Your task to perform on an android device: Show the shopping cart on bestbuy. Search for "logitech g903" on bestbuy, select the first entry, add it to the cart, then select checkout. Image 0: 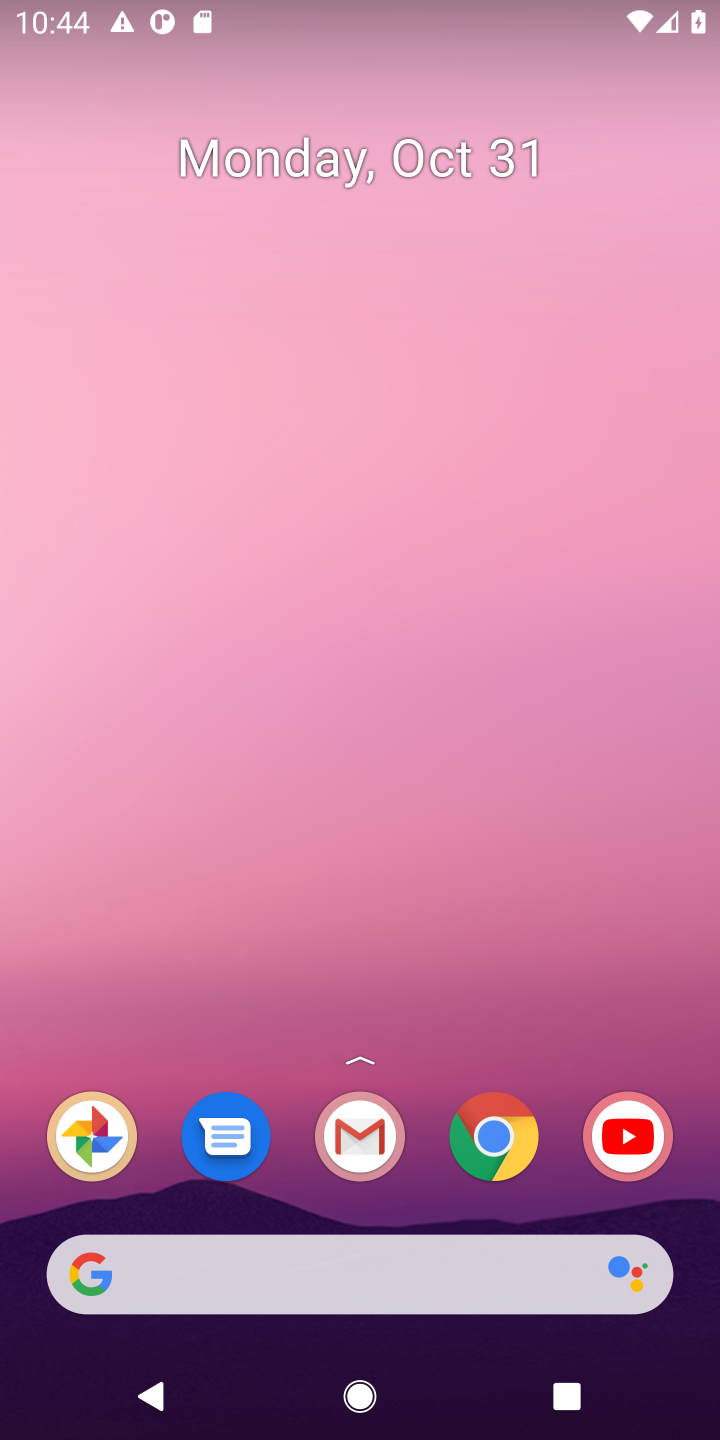
Step 0: press home button
Your task to perform on an android device: Show the shopping cart on bestbuy. Search for "logitech g903" on bestbuy, select the first entry, add it to the cart, then select checkout. Image 1: 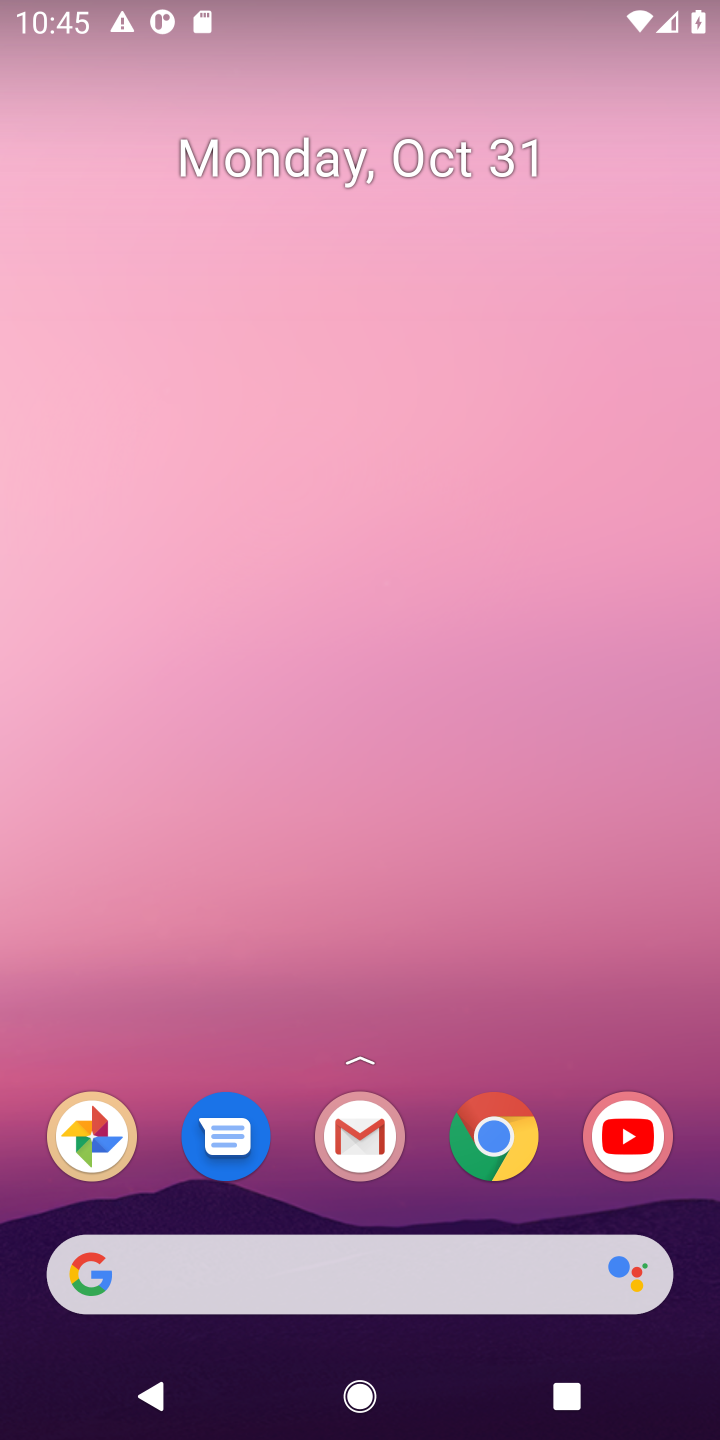
Step 1: click (166, 1257)
Your task to perform on an android device: Show the shopping cart on bestbuy. Search for "logitech g903" on bestbuy, select the first entry, add it to the cart, then select checkout. Image 2: 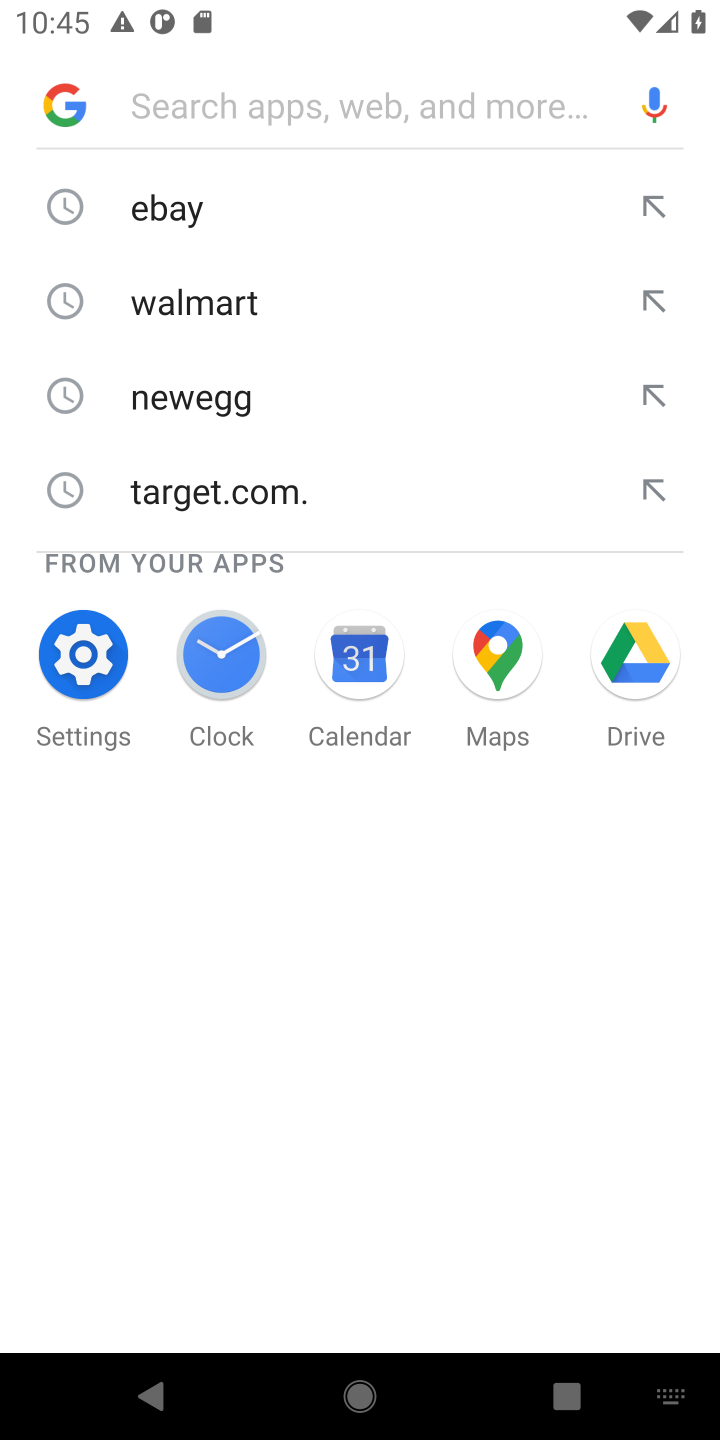
Step 2: type "bestbuy"
Your task to perform on an android device: Show the shopping cart on bestbuy. Search for "logitech g903" on bestbuy, select the first entry, add it to the cart, then select checkout. Image 3: 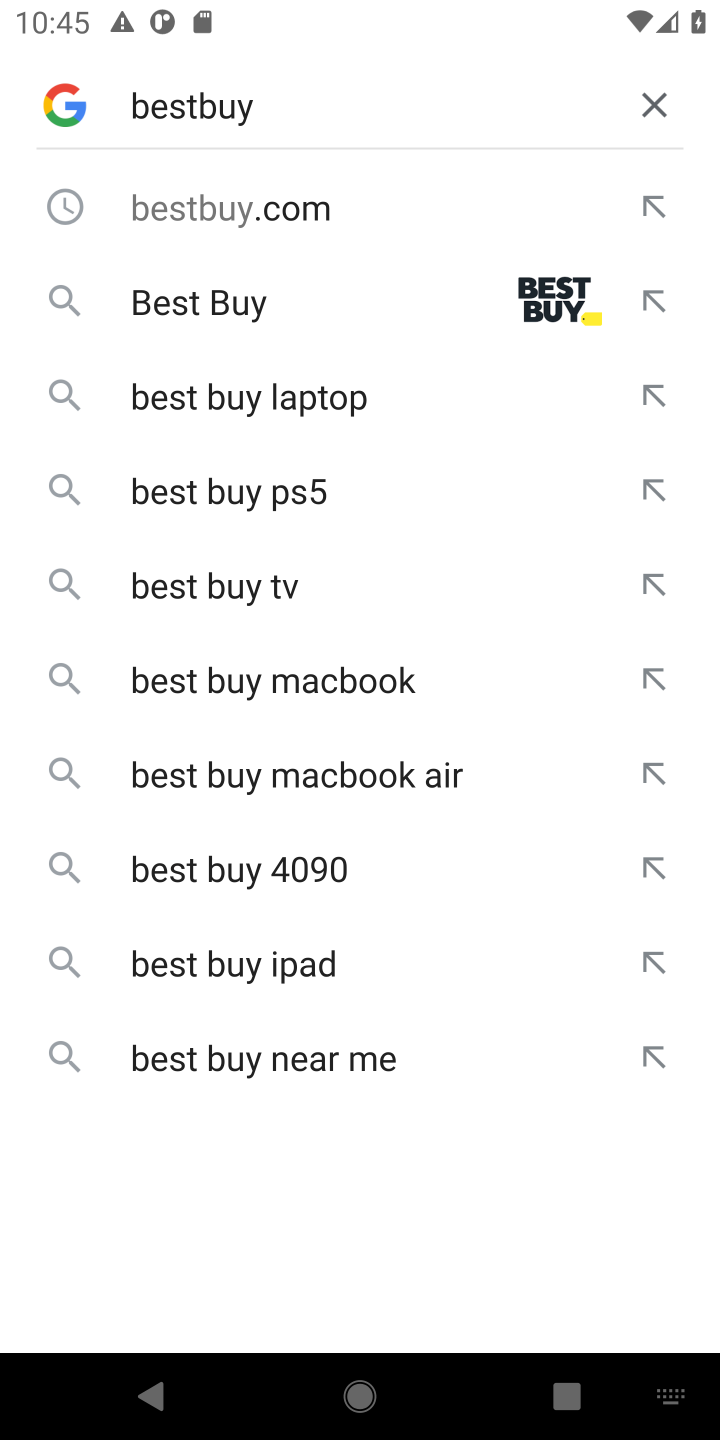
Step 3: press enter
Your task to perform on an android device: Show the shopping cart on bestbuy. Search for "logitech g903" on bestbuy, select the first entry, add it to the cart, then select checkout. Image 4: 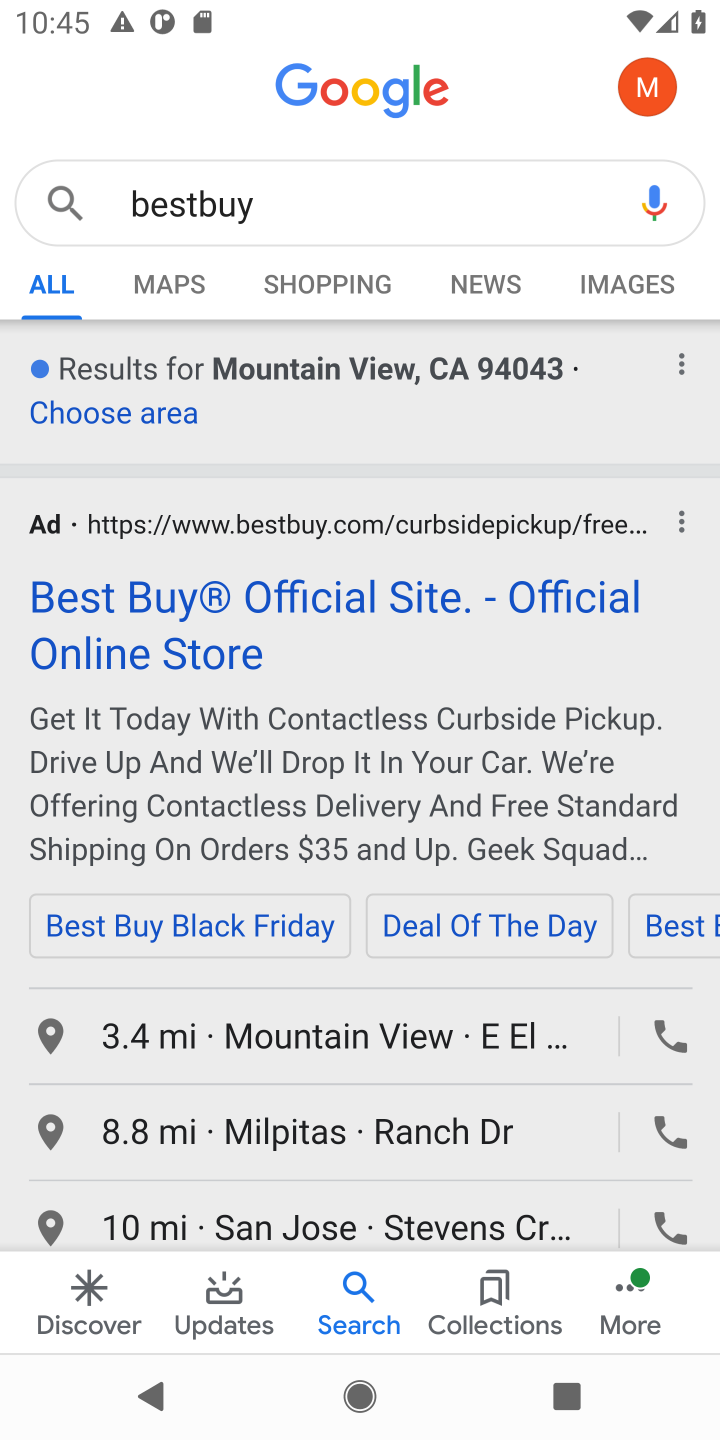
Step 4: click (239, 606)
Your task to perform on an android device: Show the shopping cart on bestbuy. Search for "logitech g903" on bestbuy, select the first entry, add it to the cart, then select checkout. Image 5: 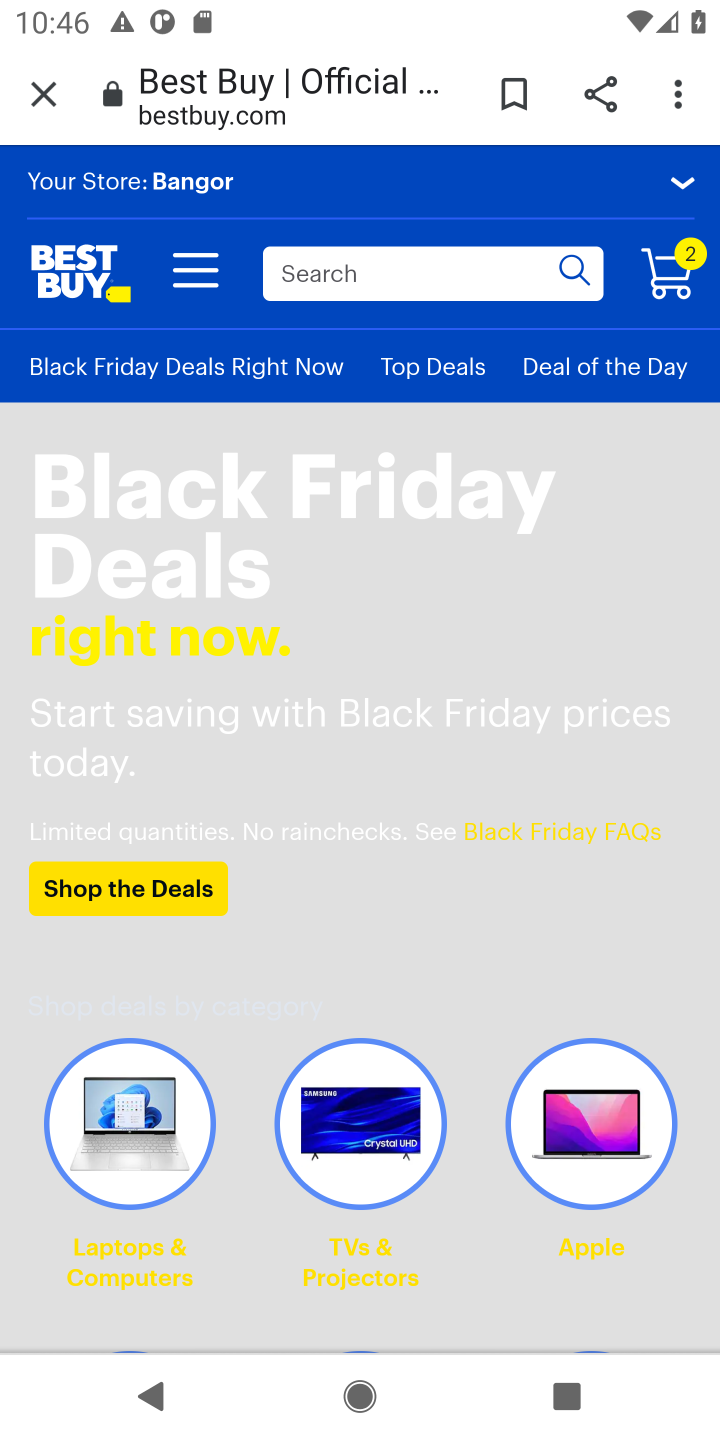
Step 5: click (667, 262)
Your task to perform on an android device: Show the shopping cart on bestbuy. Search for "logitech g903" on bestbuy, select the first entry, add it to the cart, then select checkout. Image 6: 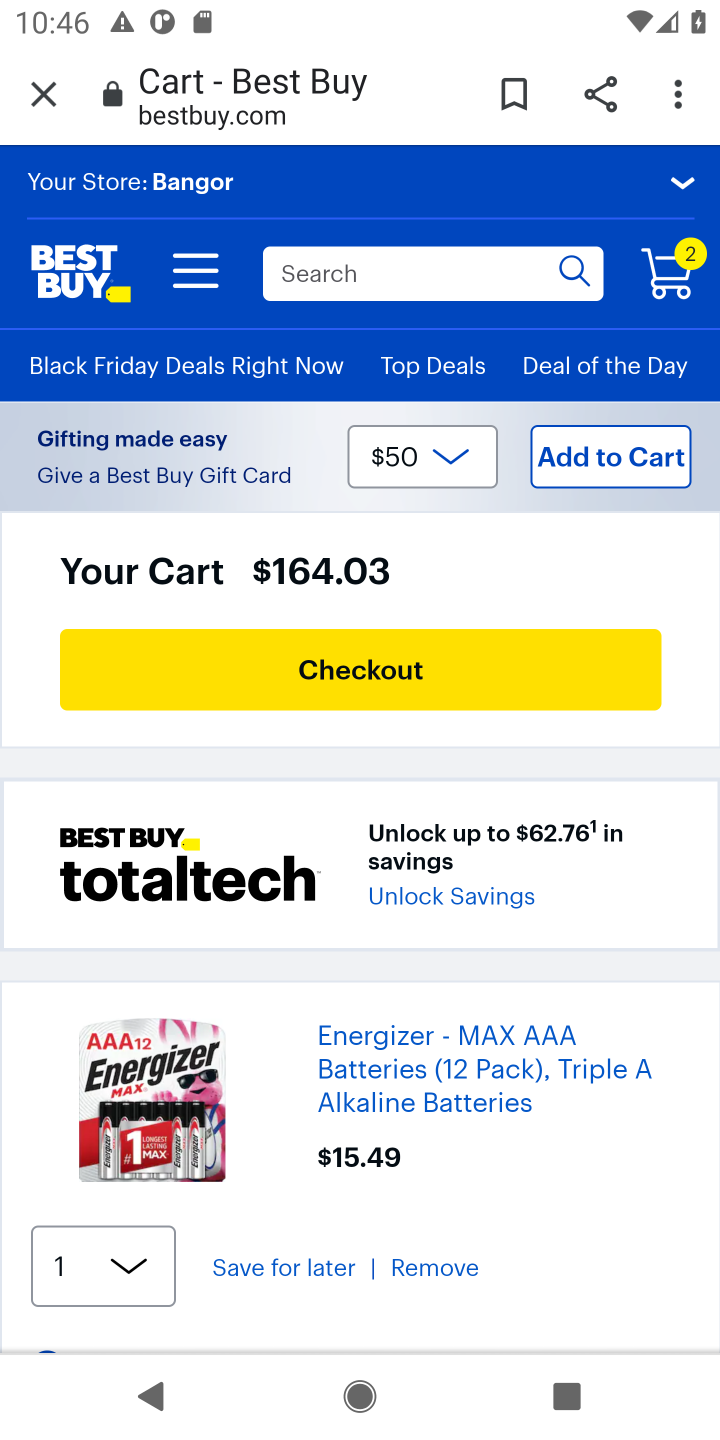
Step 6: click (330, 262)
Your task to perform on an android device: Show the shopping cart on bestbuy. Search for "logitech g903" on bestbuy, select the first entry, add it to the cart, then select checkout. Image 7: 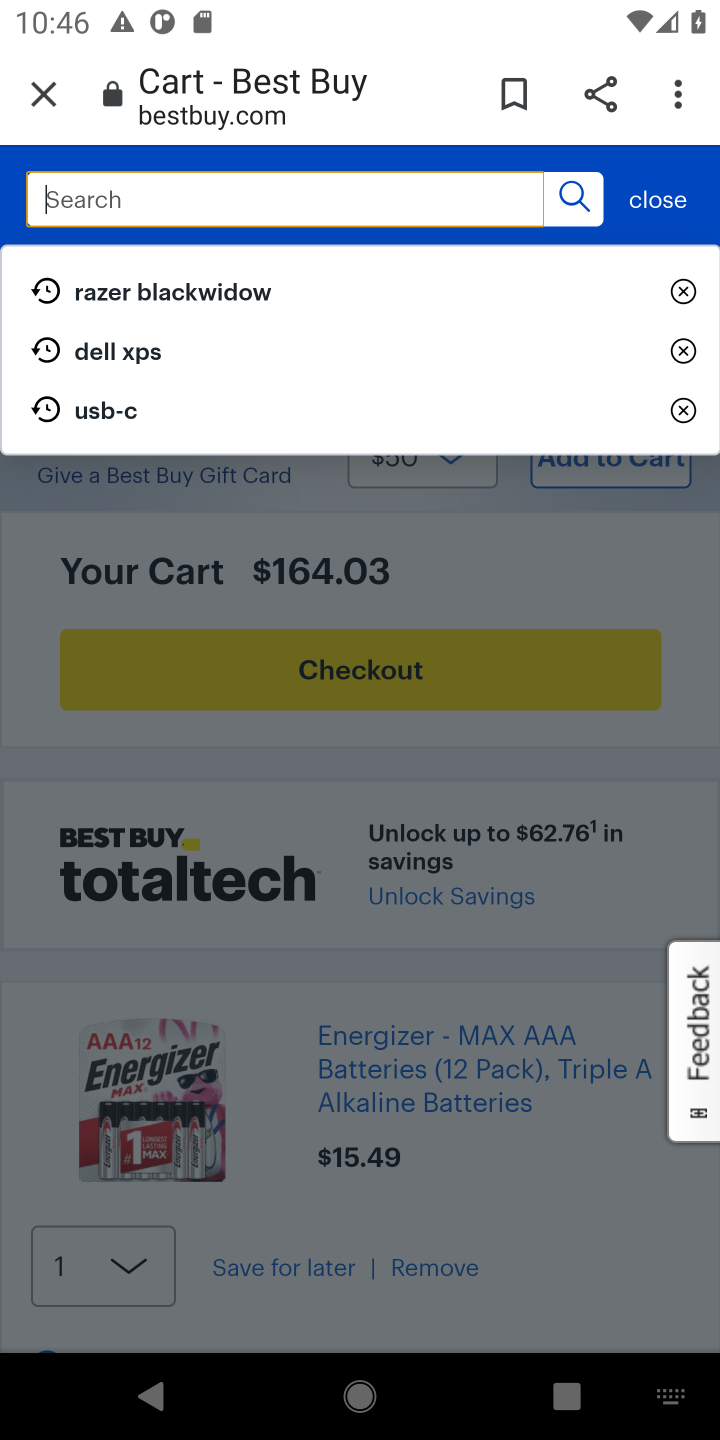
Step 7: type "logitech g903"
Your task to perform on an android device: Show the shopping cart on bestbuy. Search for "logitech g903" on bestbuy, select the first entry, add it to the cart, then select checkout. Image 8: 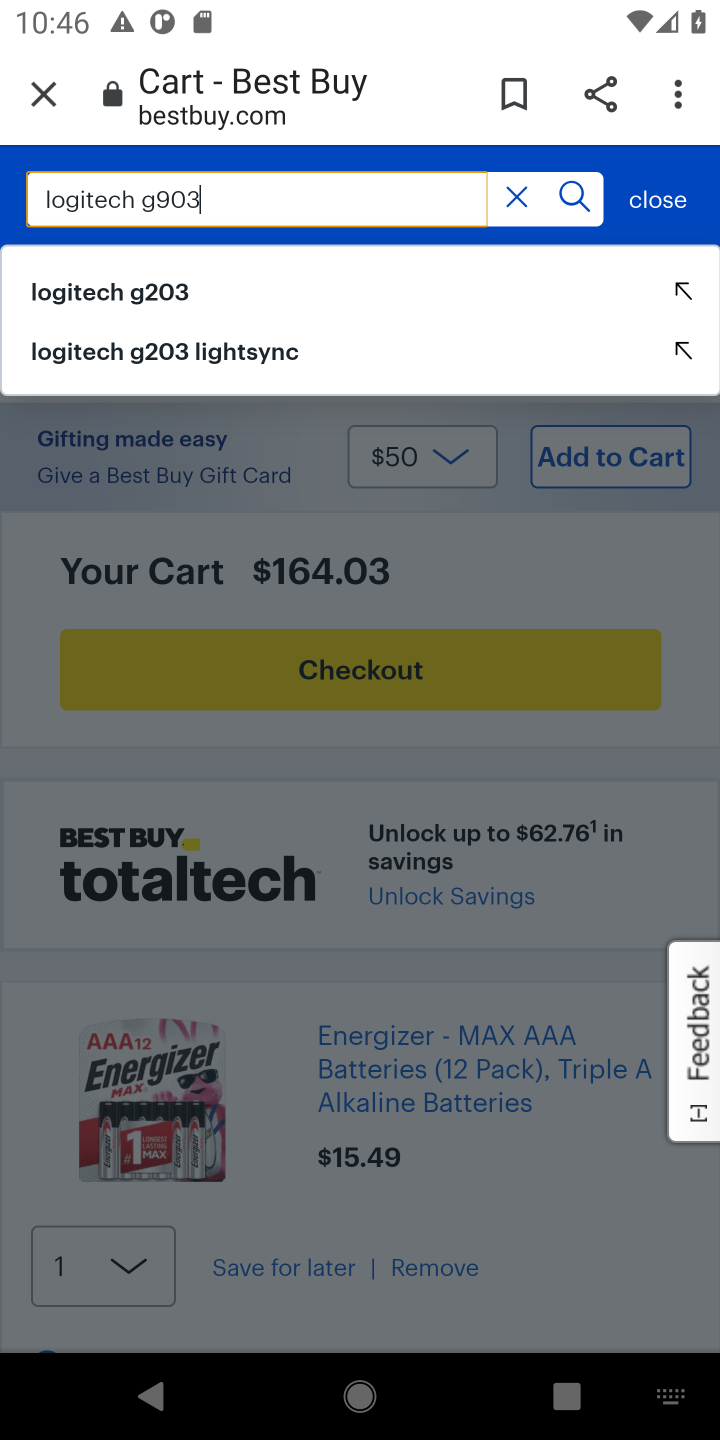
Step 8: click (574, 181)
Your task to perform on an android device: Show the shopping cart on bestbuy. Search for "logitech g903" on bestbuy, select the first entry, add it to the cart, then select checkout. Image 9: 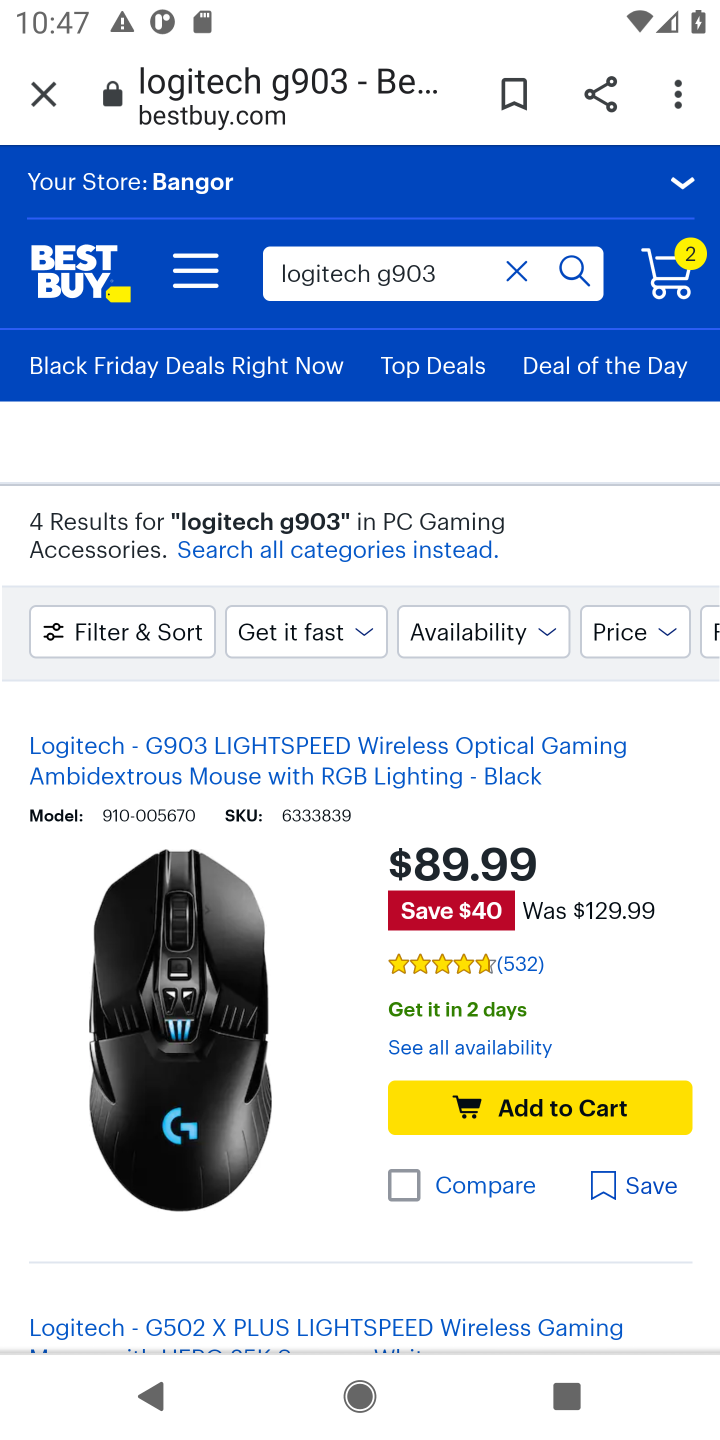
Step 9: click (536, 1099)
Your task to perform on an android device: Show the shopping cart on bestbuy. Search for "logitech g903" on bestbuy, select the first entry, add it to the cart, then select checkout. Image 10: 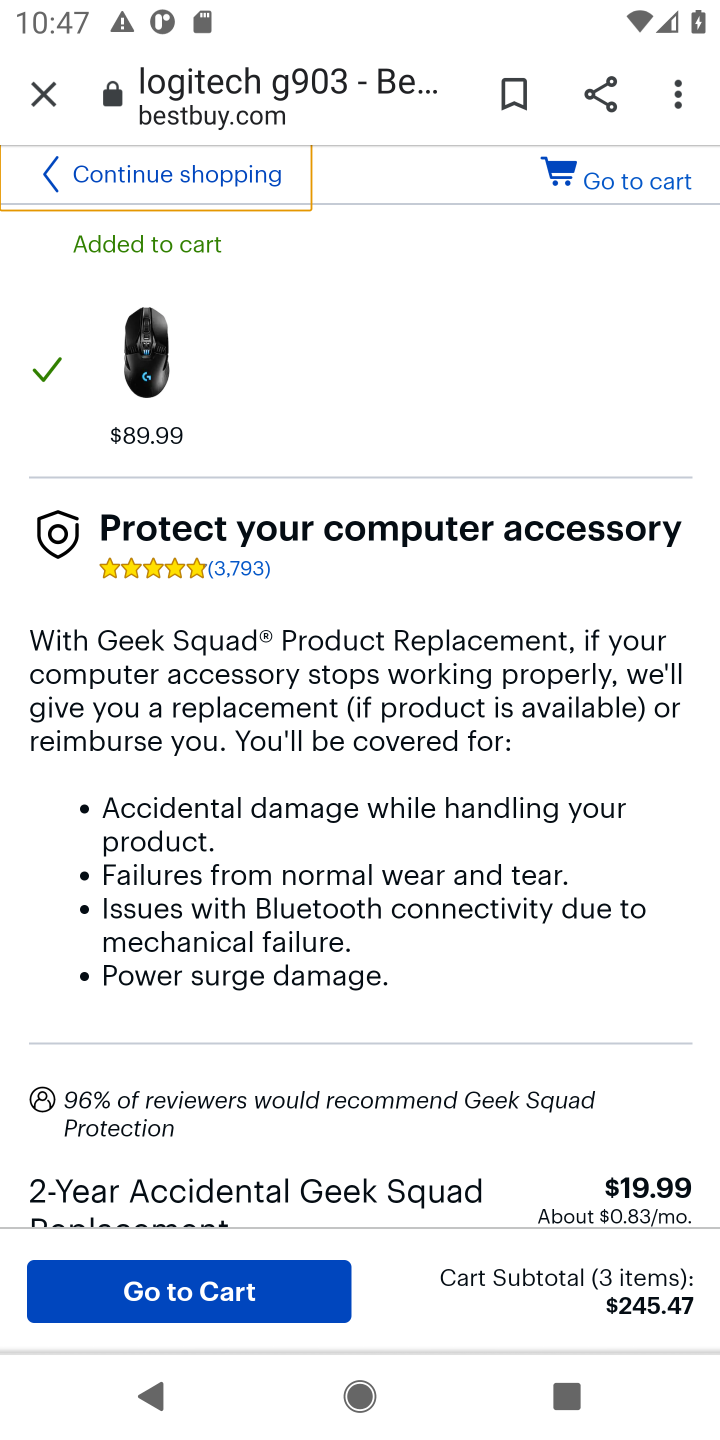
Step 10: click (252, 1299)
Your task to perform on an android device: Show the shopping cart on bestbuy. Search for "logitech g903" on bestbuy, select the first entry, add it to the cart, then select checkout. Image 11: 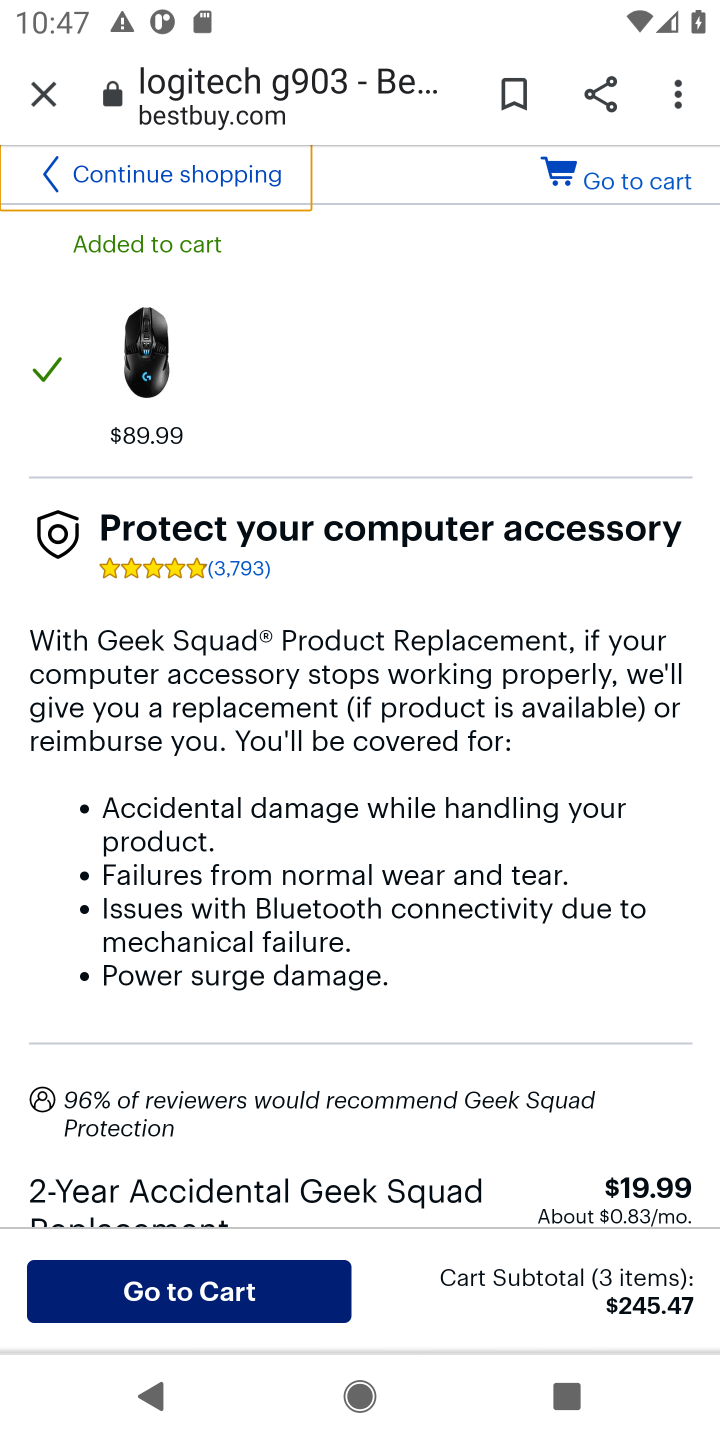
Step 11: click (238, 1307)
Your task to perform on an android device: Show the shopping cart on bestbuy. Search for "logitech g903" on bestbuy, select the first entry, add it to the cart, then select checkout. Image 12: 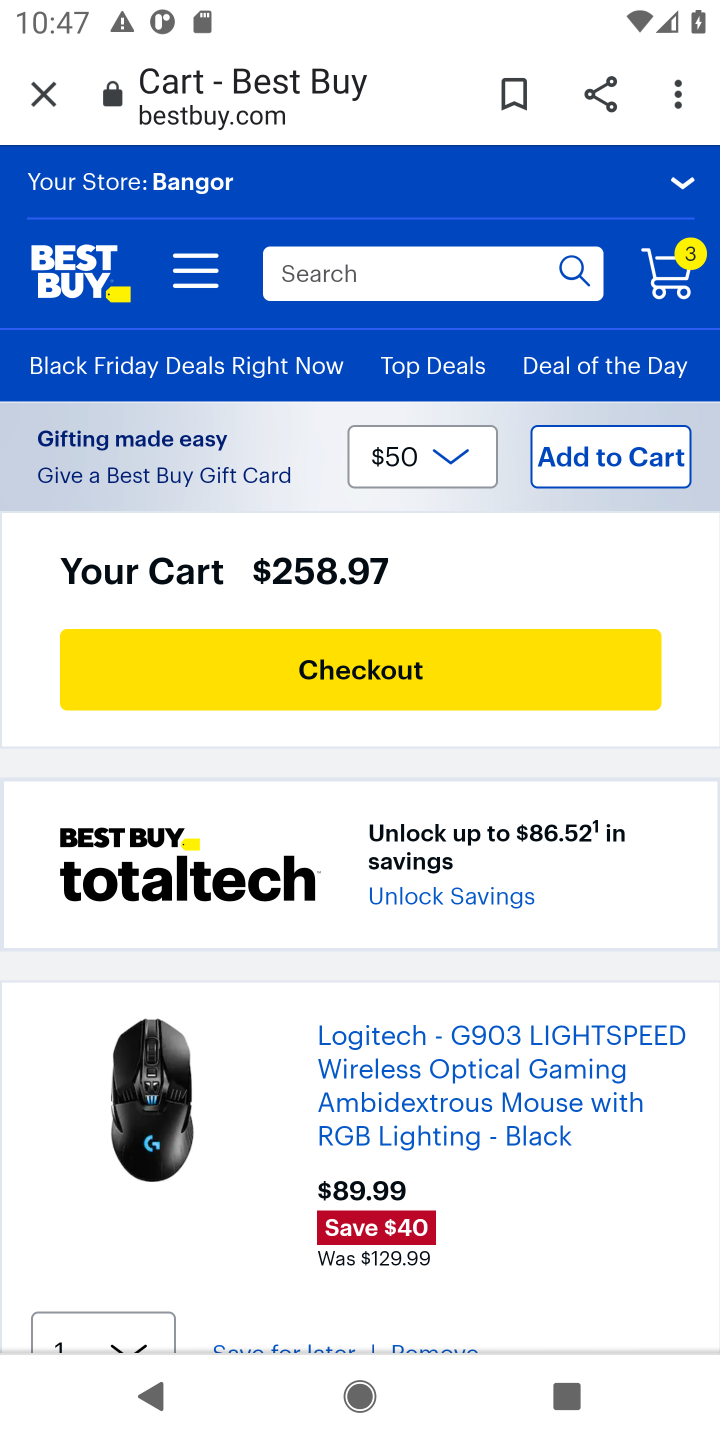
Step 12: click (429, 666)
Your task to perform on an android device: Show the shopping cart on bestbuy. Search for "logitech g903" on bestbuy, select the first entry, add it to the cart, then select checkout. Image 13: 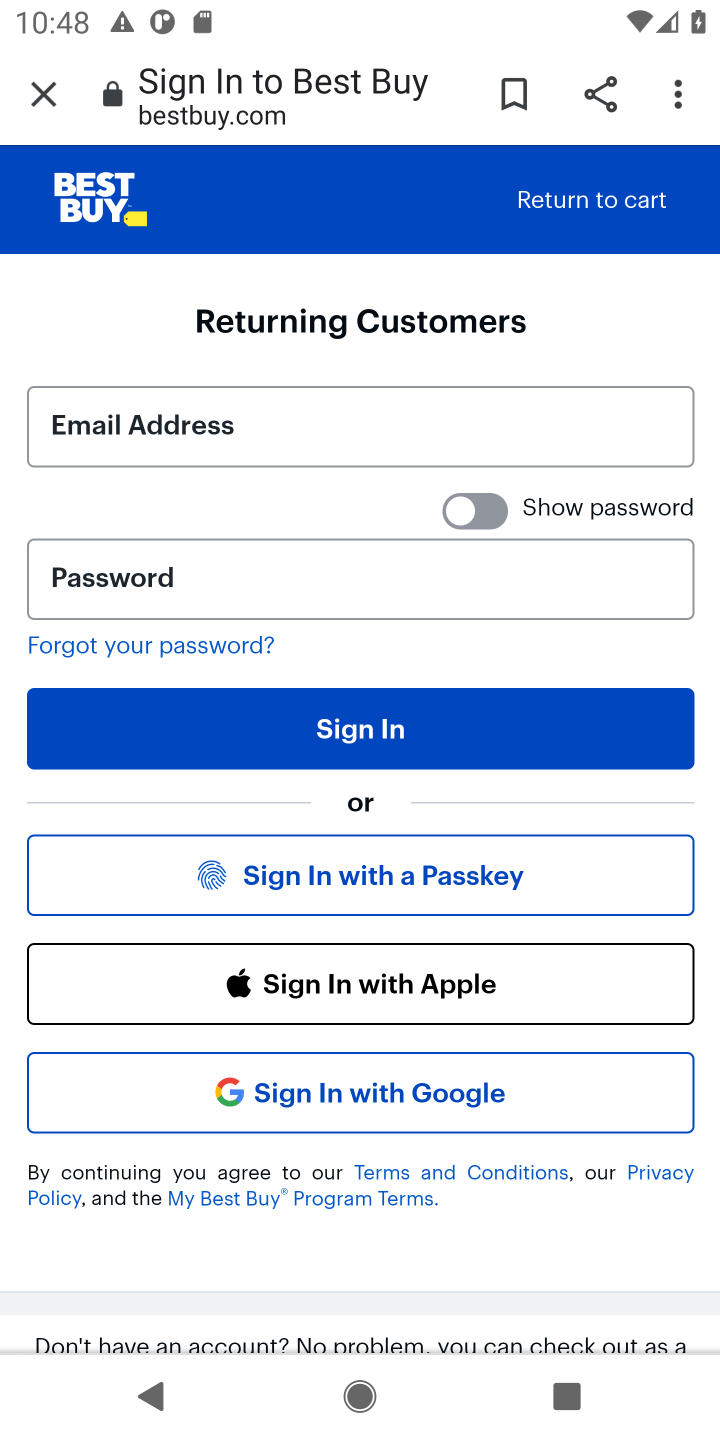
Step 13: task complete